Your task to perform on an android device: Open Amazon Image 0: 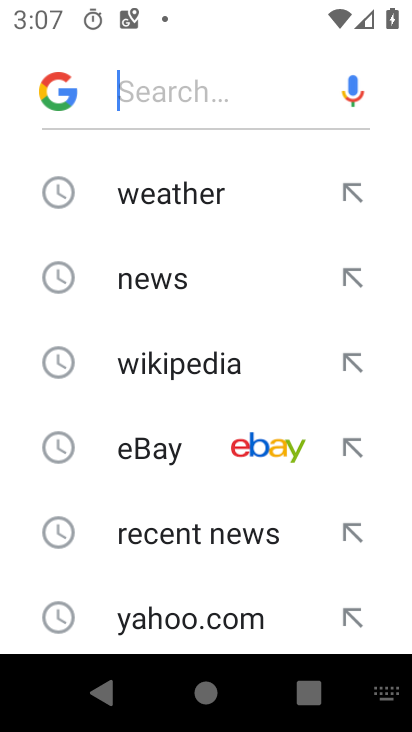
Step 0: press home button
Your task to perform on an android device: Open Amazon Image 1: 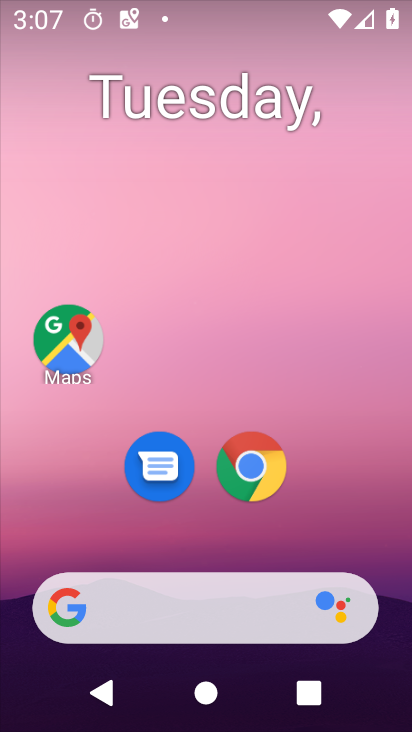
Step 1: drag from (363, 529) to (344, 156)
Your task to perform on an android device: Open Amazon Image 2: 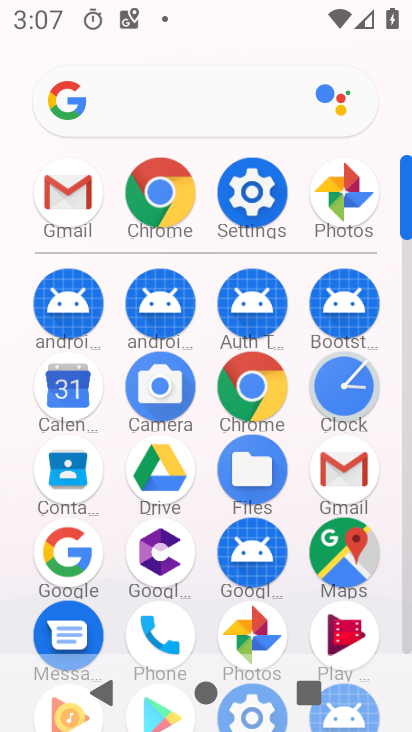
Step 2: click (271, 389)
Your task to perform on an android device: Open Amazon Image 3: 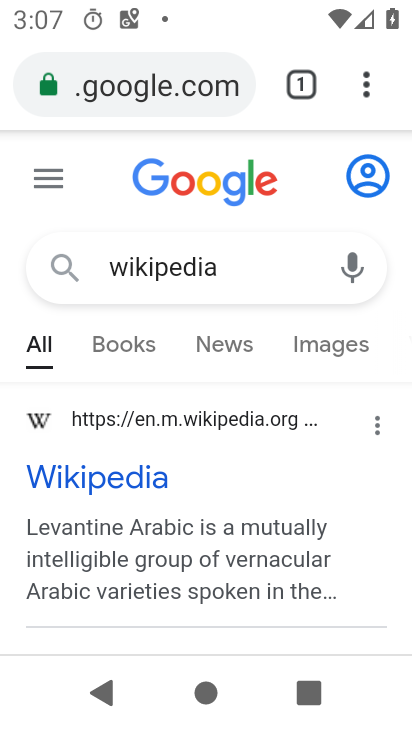
Step 3: click (171, 97)
Your task to perform on an android device: Open Amazon Image 4: 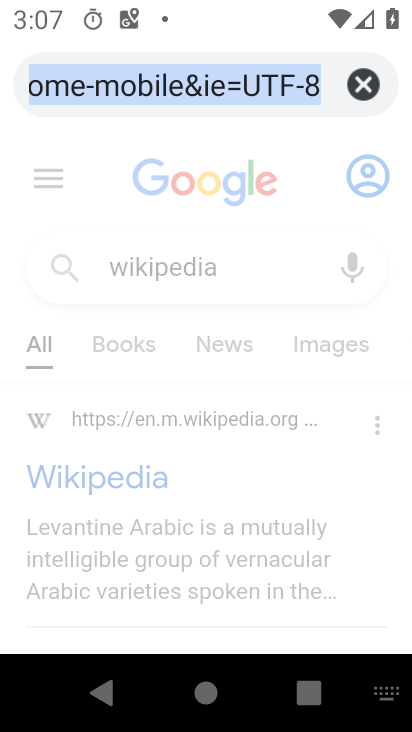
Step 4: click (369, 84)
Your task to perform on an android device: Open Amazon Image 5: 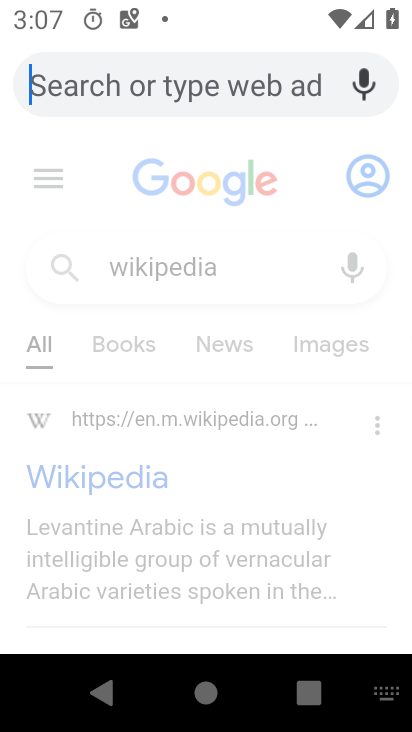
Step 5: type "amazon"
Your task to perform on an android device: Open Amazon Image 6: 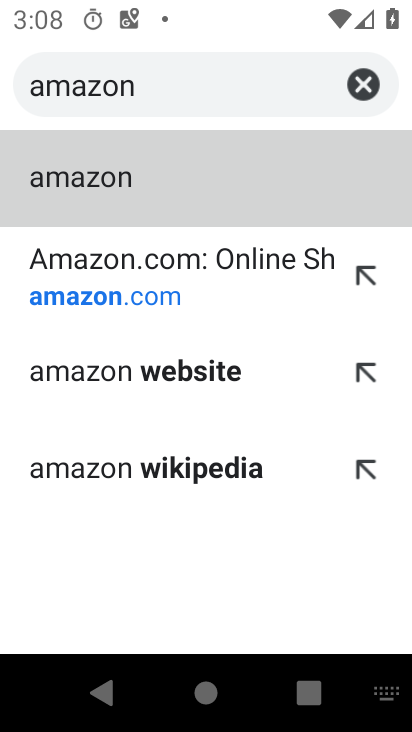
Step 6: click (150, 282)
Your task to perform on an android device: Open Amazon Image 7: 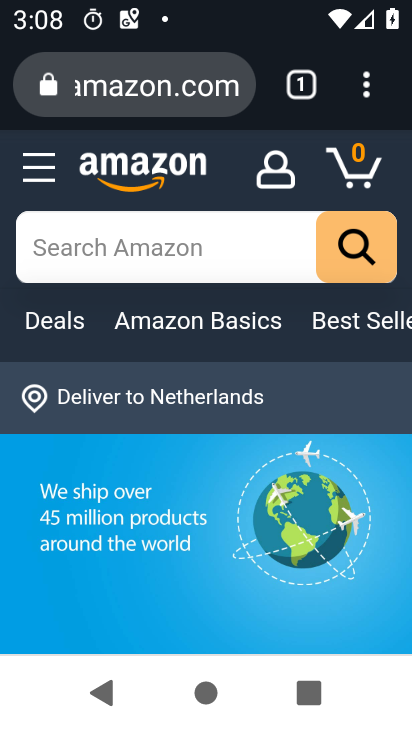
Step 7: task complete